Your task to perform on an android device: move a message to another label in the gmail app Image 0: 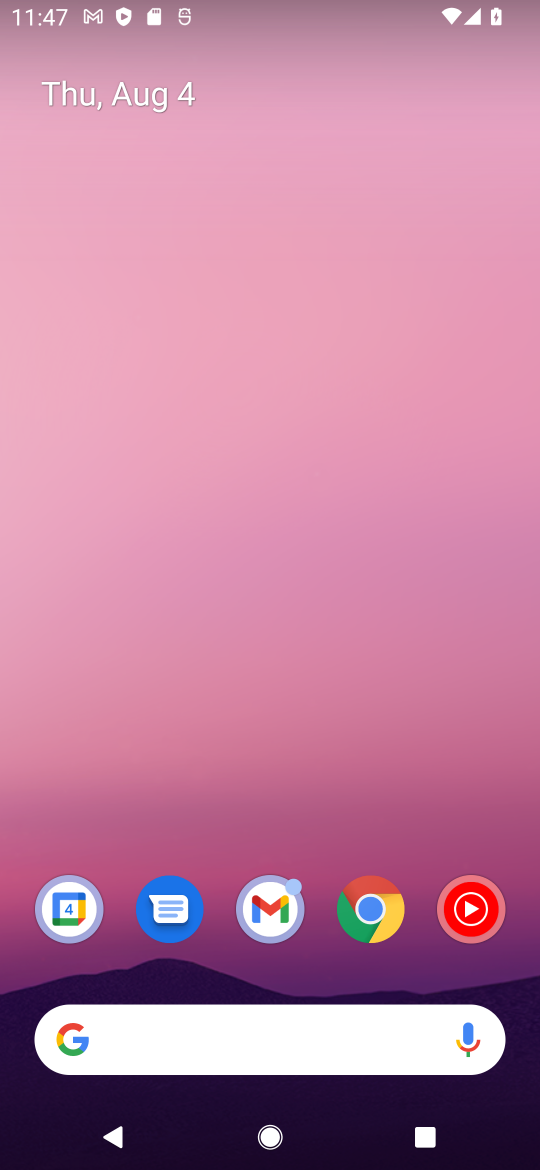
Step 0: drag from (184, 1128) to (218, 199)
Your task to perform on an android device: move a message to another label in the gmail app Image 1: 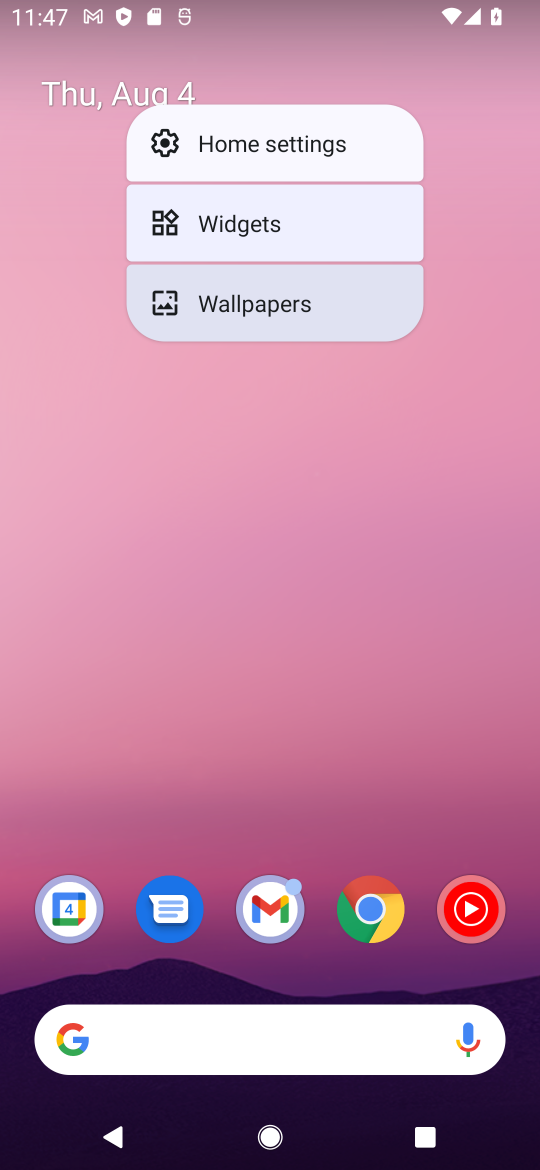
Step 1: click (294, 869)
Your task to perform on an android device: move a message to another label in the gmail app Image 2: 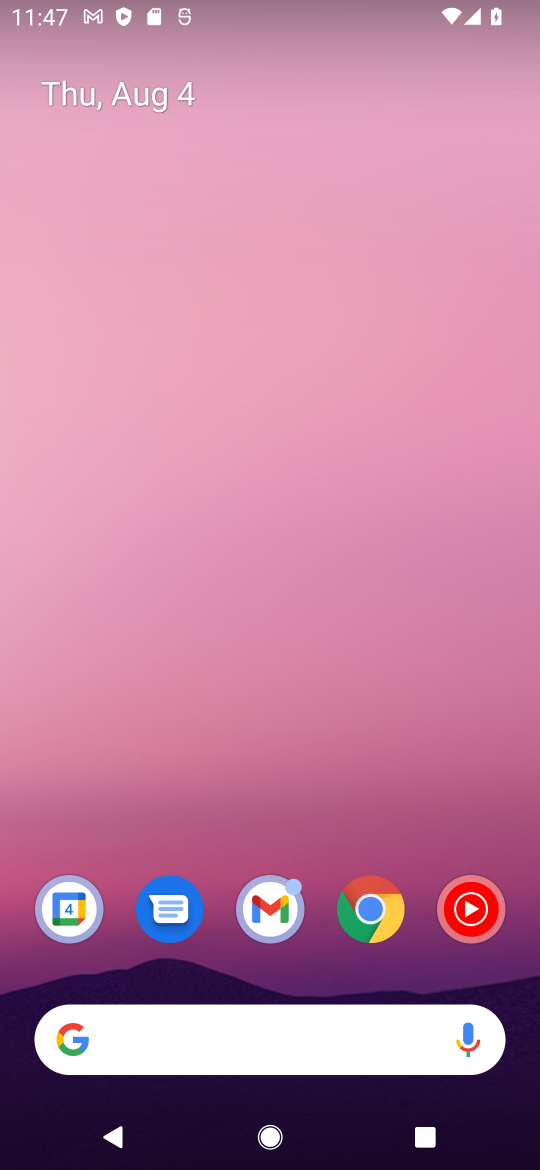
Step 2: click (282, 908)
Your task to perform on an android device: move a message to another label in the gmail app Image 3: 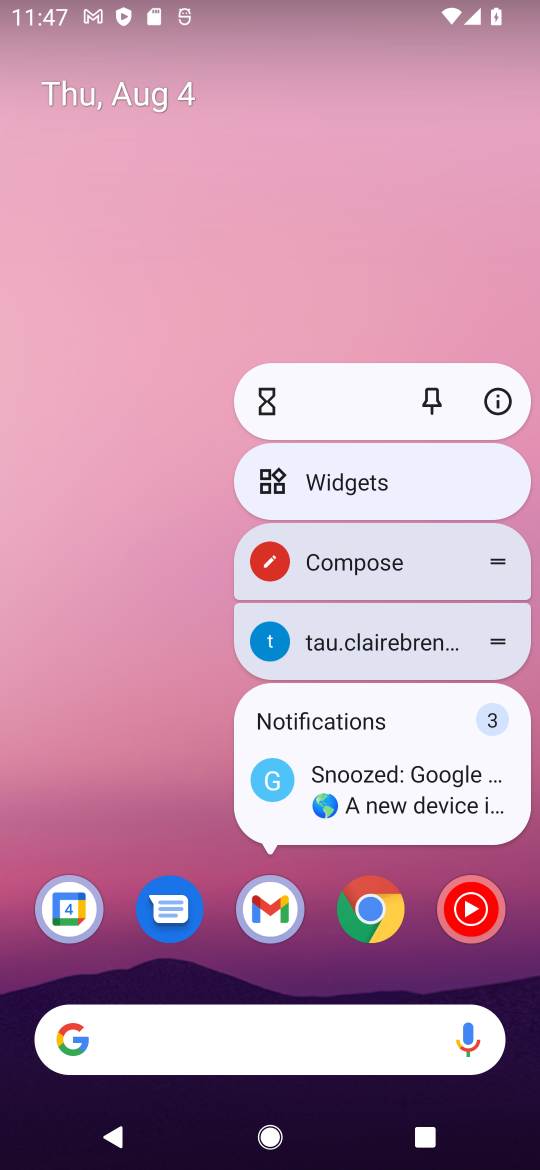
Step 3: click (282, 908)
Your task to perform on an android device: move a message to another label in the gmail app Image 4: 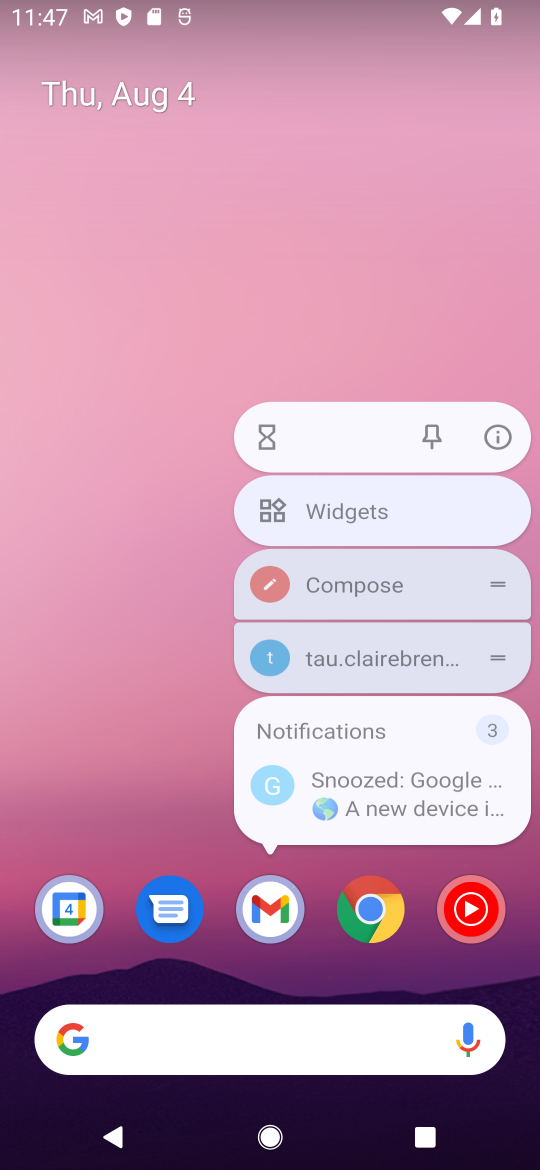
Step 4: click (282, 908)
Your task to perform on an android device: move a message to another label in the gmail app Image 5: 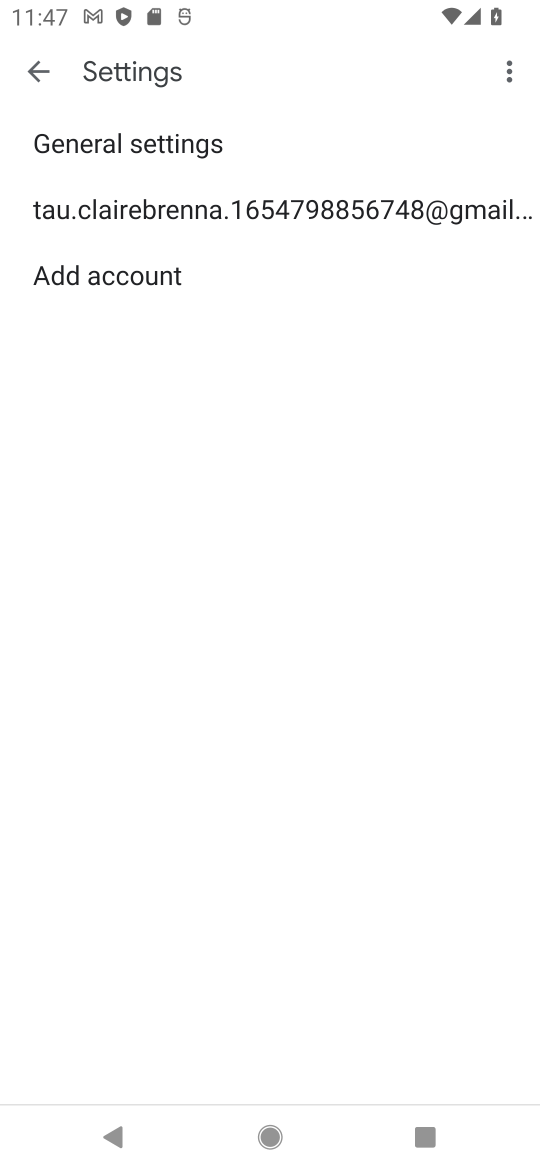
Step 5: click (460, 199)
Your task to perform on an android device: move a message to another label in the gmail app Image 6: 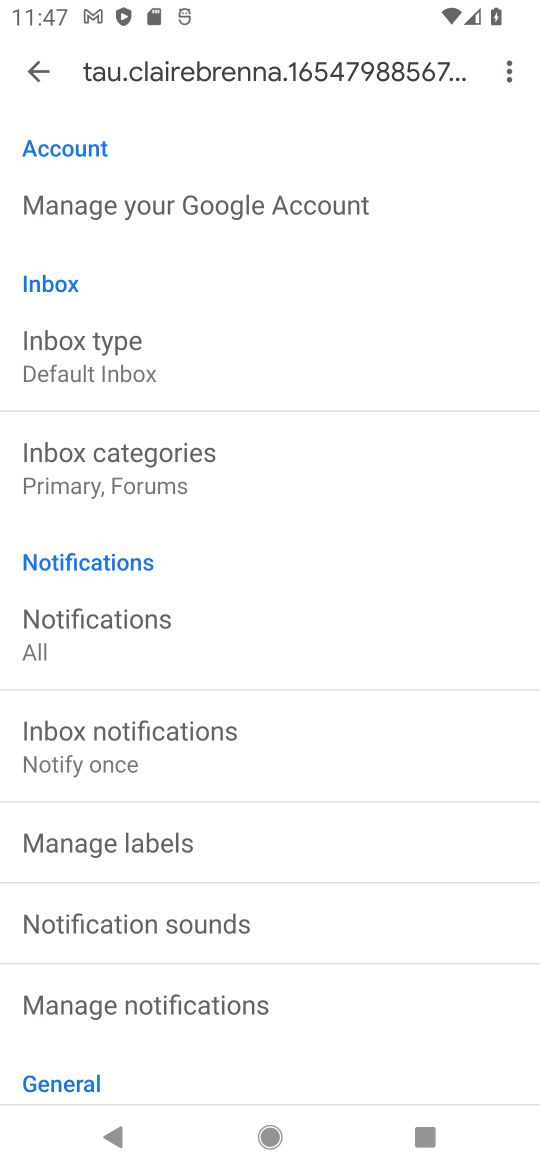
Step 6: click (44, 74)
Your task to perform on an android device: move a message to another label in the gmail app Image 7: 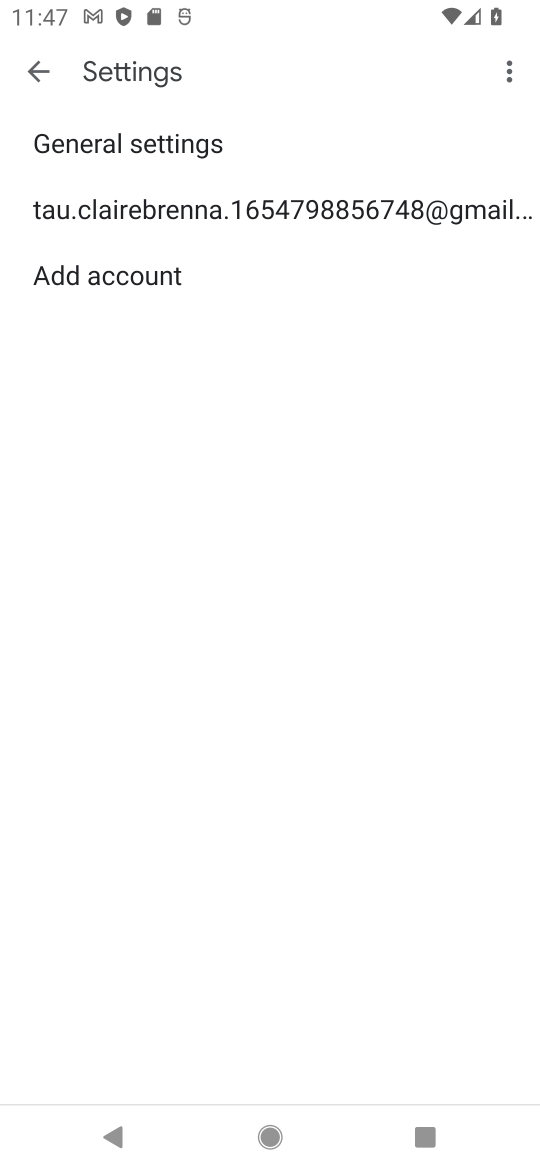
Step 7: click (58, 65)
Your task to perform on an android device: move a message to another label in the gmail app Image 8: 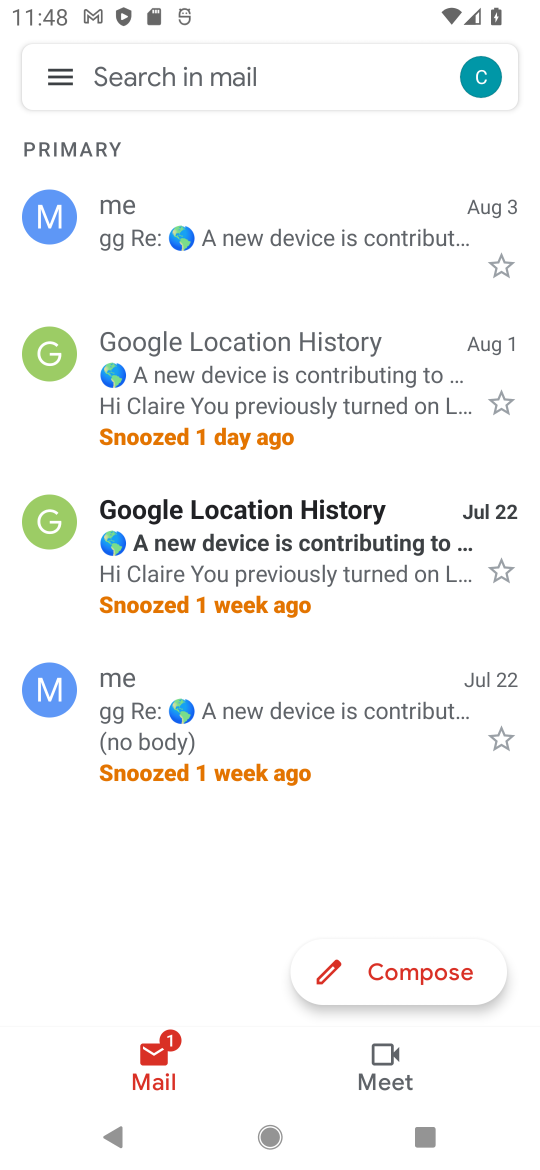
Step 8: click (326, 543)
Your task to perform on an android device: move a message to another label in the gmail app Image 9: 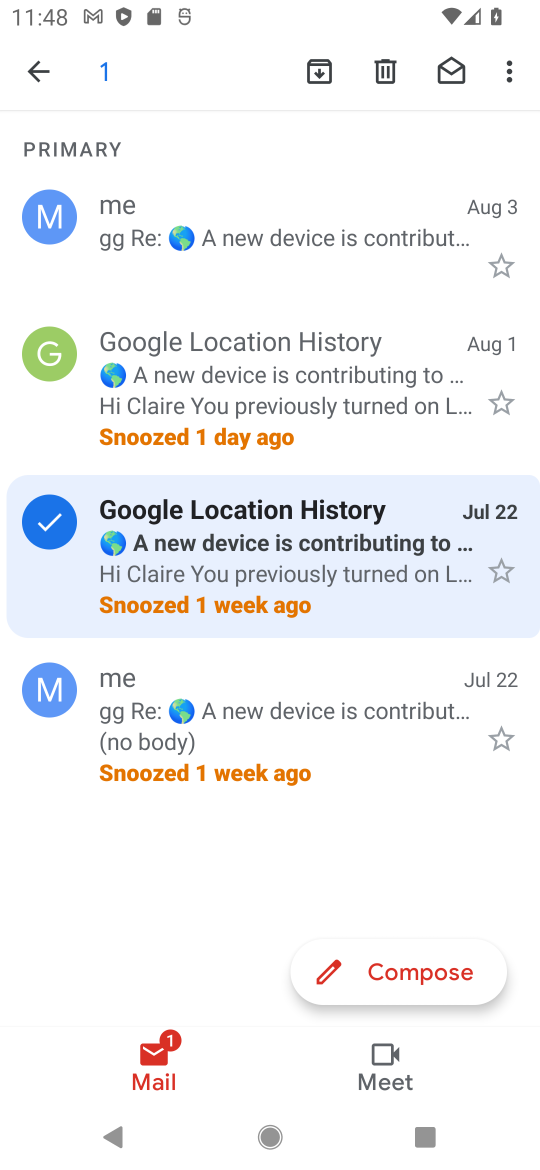
Step 9: click (514, 73)
Your task to perform on an android device: move a message to another label in the gmail app Image 10: 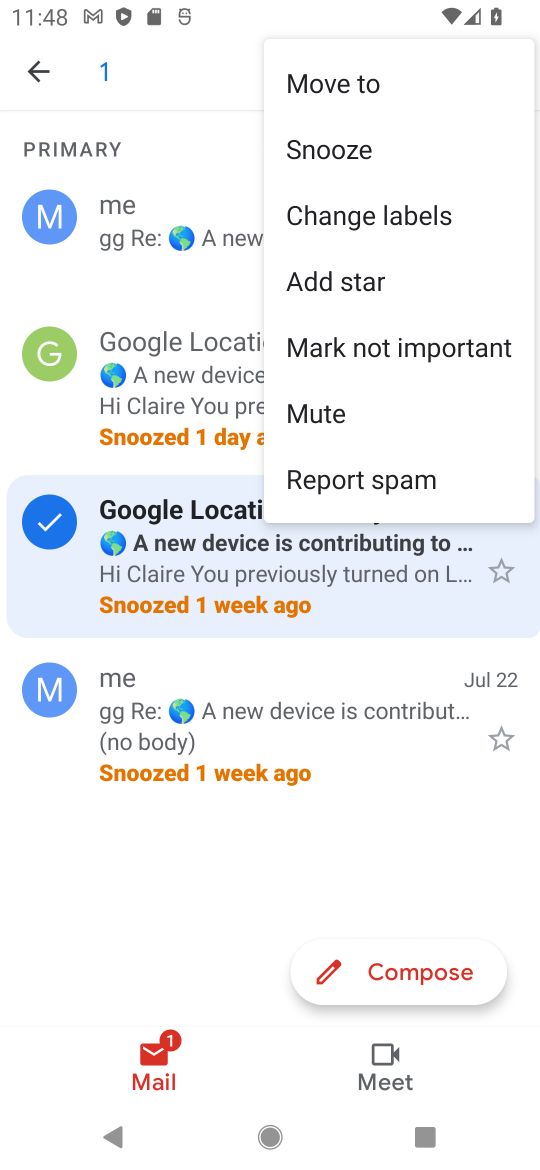
Step 10: click (358, 83)
Your task to perform on an android device: move a message to another label in the gmail app Image 11: 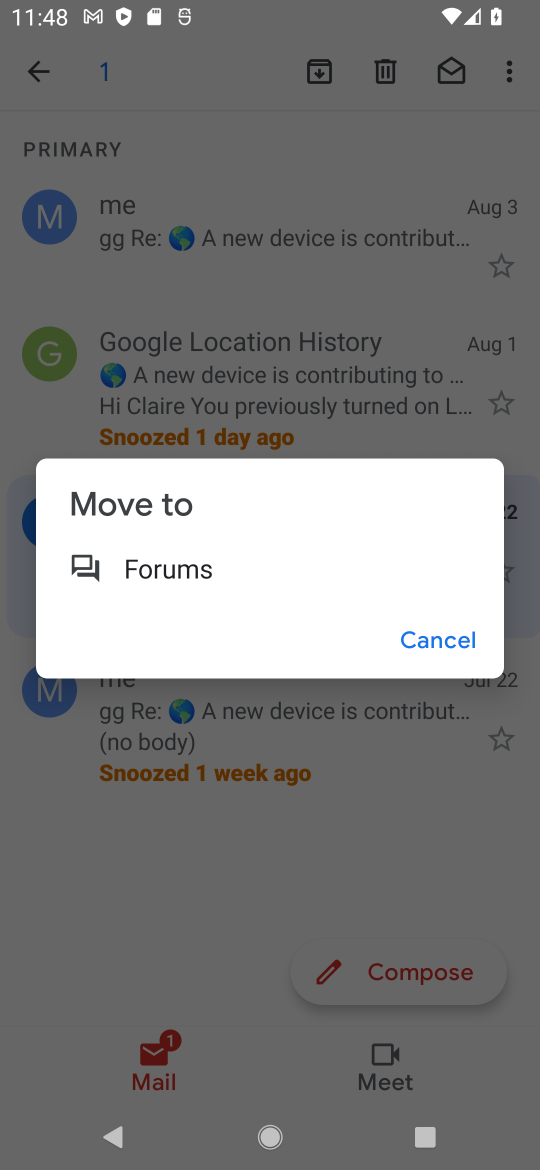
Step 11: click (445, 643)
Your task to perform on an android device: move a message to another label in the gmail app Image 12: 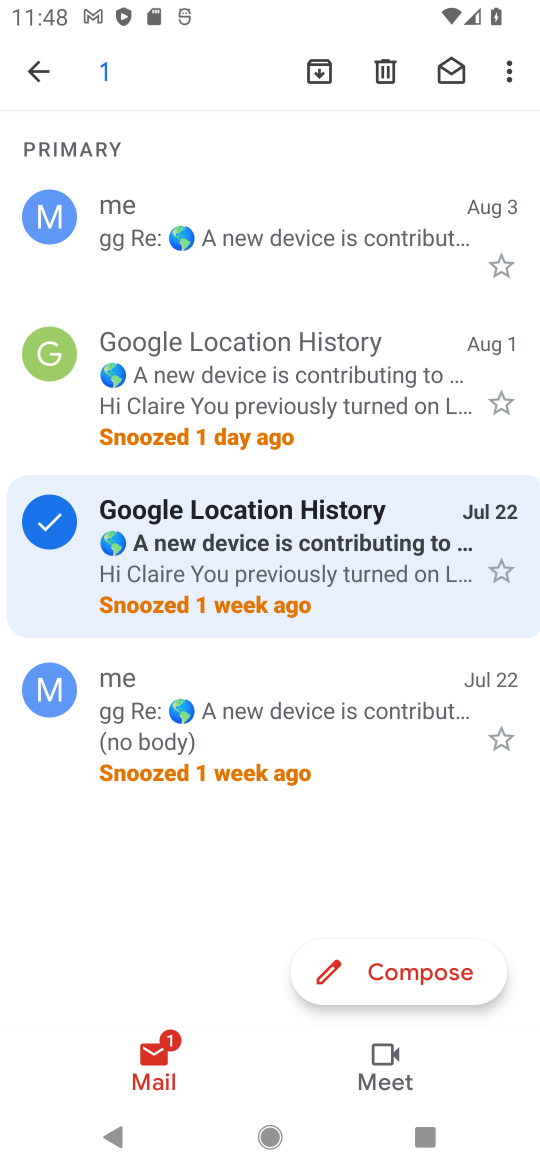
Step 12: task complete